Your task to perform on an android device: snooze an email in the gmail app Image 0: 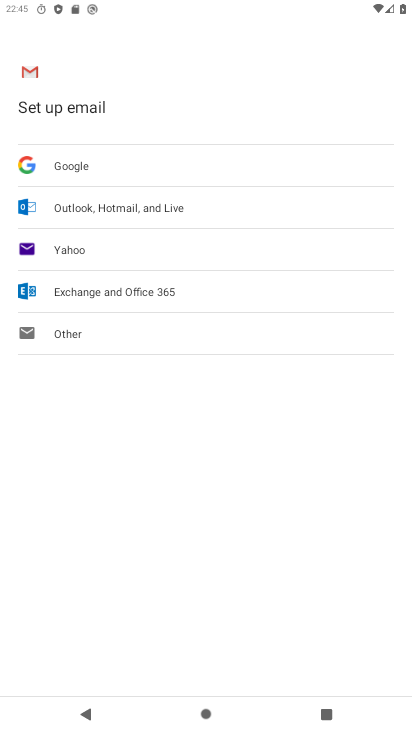
Step 0: press home button
Your task to perform on an android device: snooze an email in the gmail app Image 1: 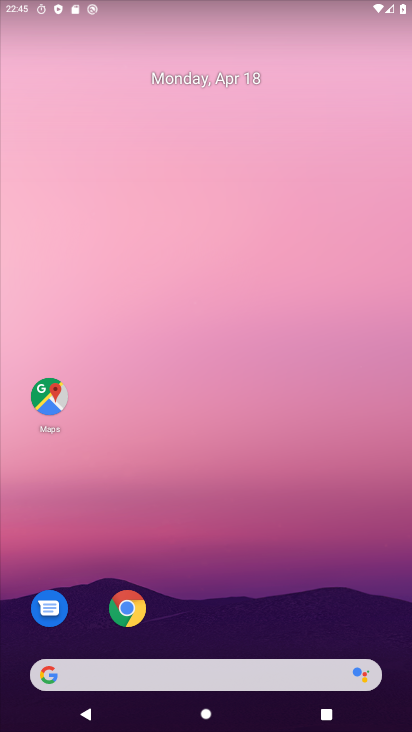
Step 1: drag from (273, 590) to (305, 115)
Your task to perform on an android device: snooze an email in the gmail app Image 2: 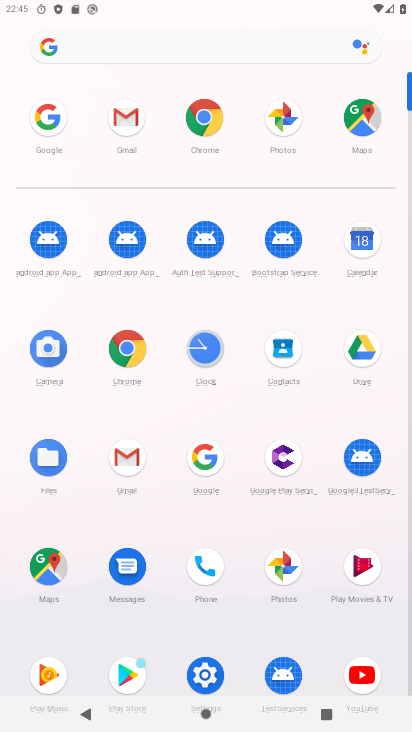
Step 2: click (119, 113)
Your task to perform on an android device: snooze an email in the gmail app Image 3: 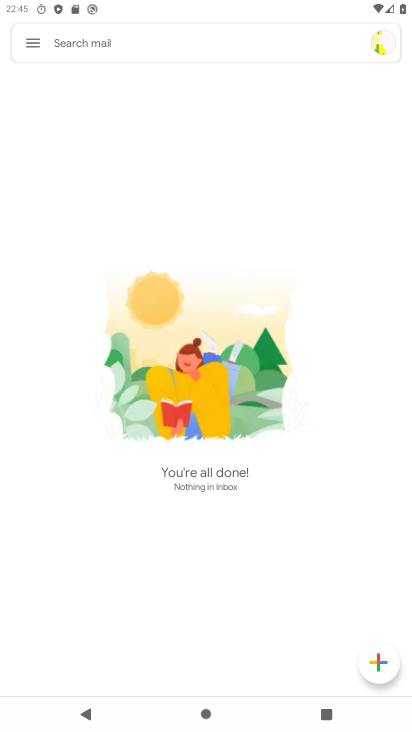
Step 3: click (33, 39)
Your task to perform on an android device: snooze an email in the gmail app Image 4: 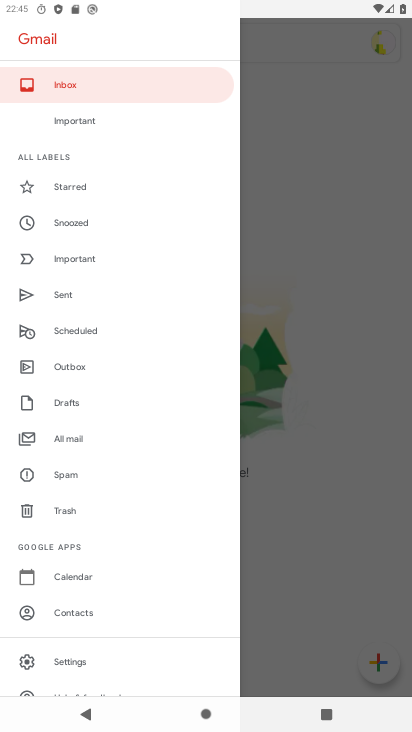
Step 4: click (74, 442)
Your task to perform on an android device: snooze an email in the gmail app Image 5: 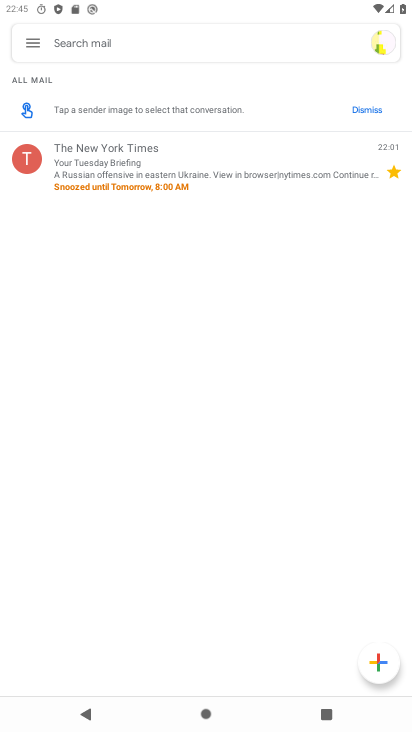
Step 5: click (134, 159)
Your task to perform on an android device: snooze an email in the gmail app Image 6: 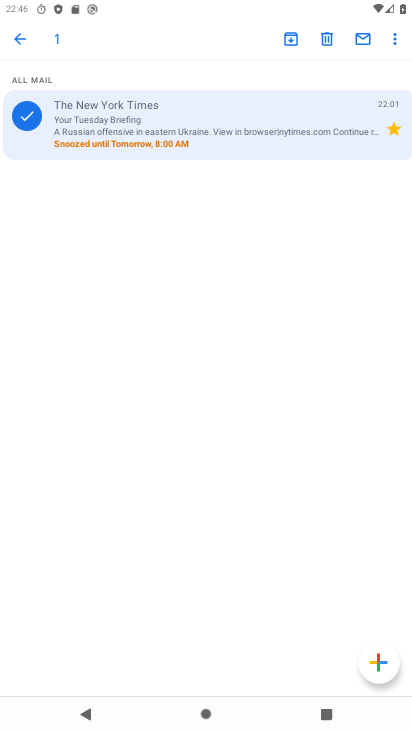
Step 6: click (393, 42)
Your task to perform on an android device: snooze an email in the gmail app Image 7: 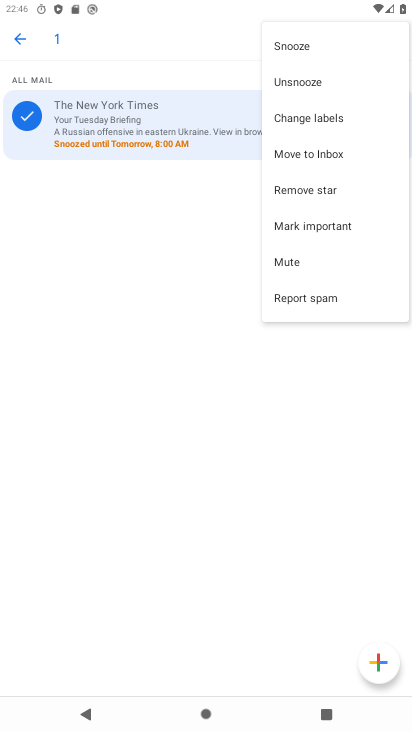
Step 7: click (304, 40)
Your task to perform on an android device: snooze an email in the gmail app Image 8: 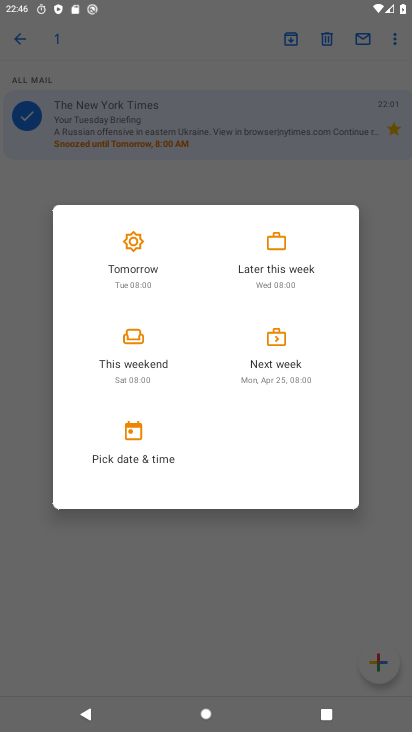
Step 8: click (133, 261)
Your task to perform on an android device: snooze an email in the gmail app Image 9: 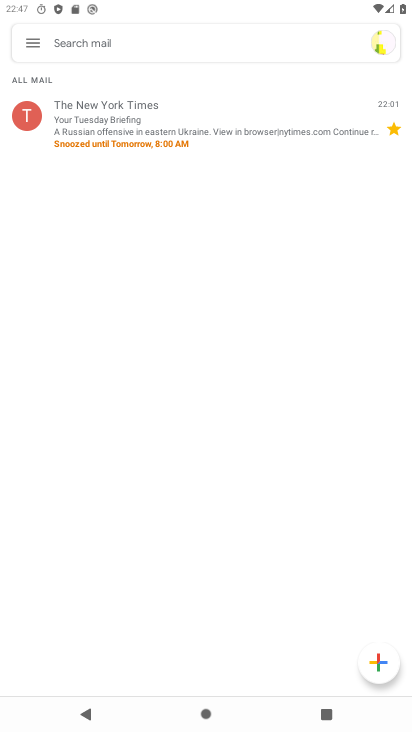
Step 9: task complete